Your task to perform on an android device: set default search engine in the chrome app Image 0: 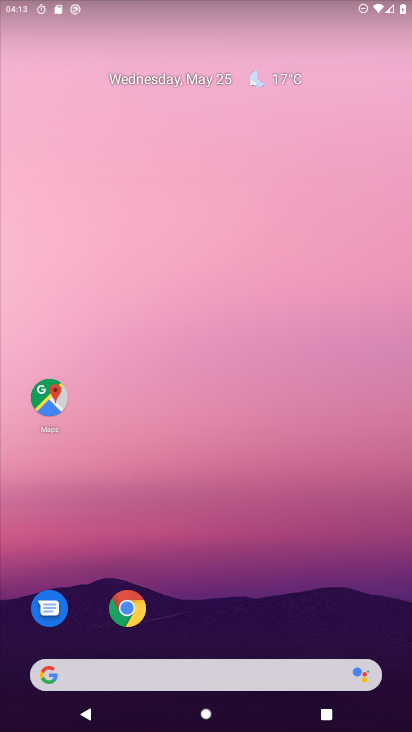
Step 0: click (121, 614)
Your task to perform on an android device: set default search engine in the chrome app Image 1: 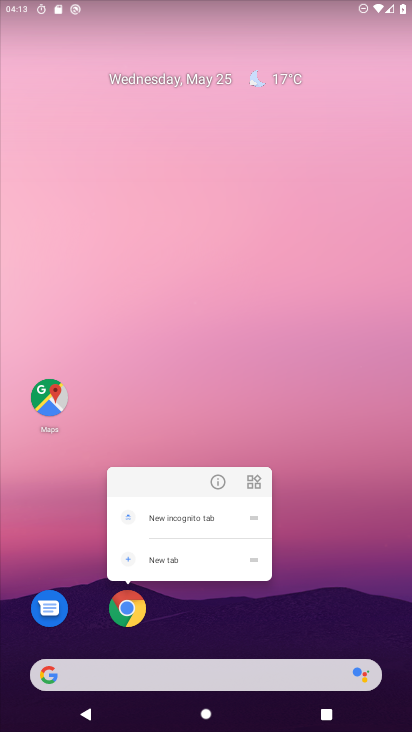
Step 1: click (125, 607)
Your task to perform on an android device: set default search engine in the chrome app Image 2: 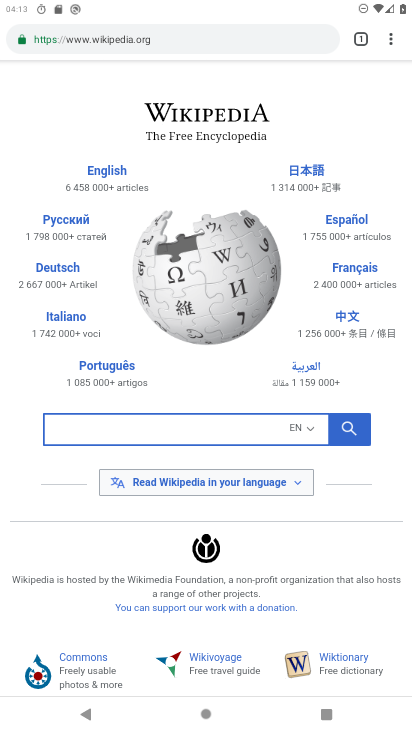
Step 2: click (390, 43)
Your task to perform on an android device: set default search engine in the chrome app Image 3: 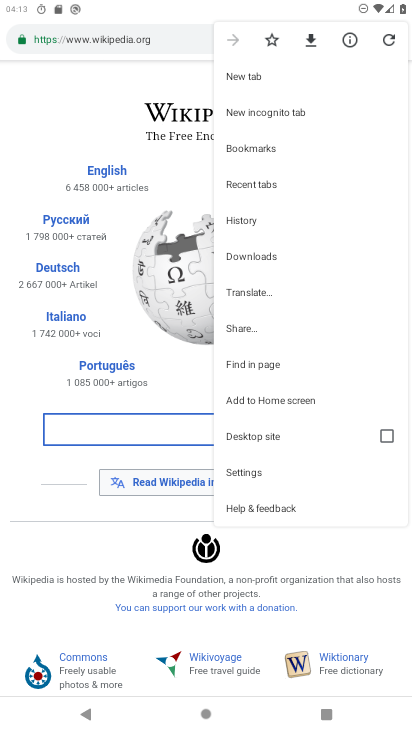
Step 3: click (245, 478)
Your task to perform on an android device: set default search engine in the chrome app Image 4: 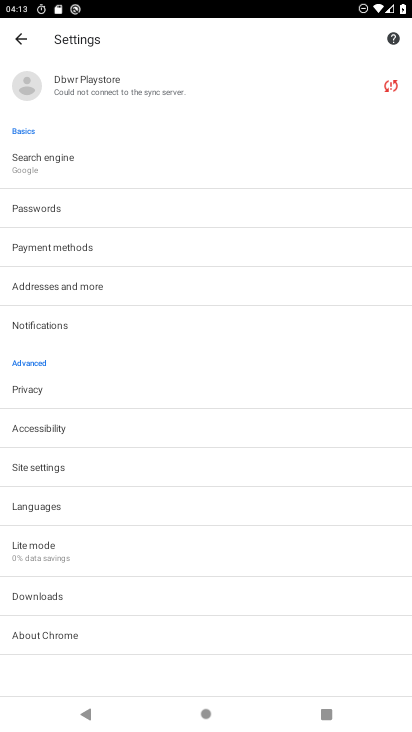
Step 4: click (76, 173)
Your task to perform on an android device: set default search engine in the chrome app Image 5: 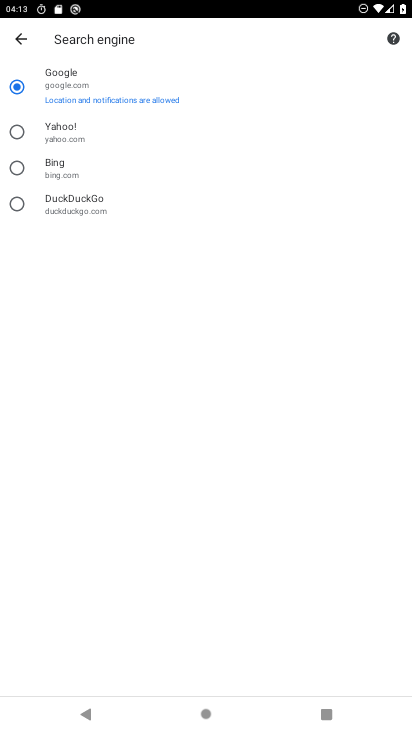
Step 5: task complete